Your task to perform on an android device: change text size in settings app Image 0: 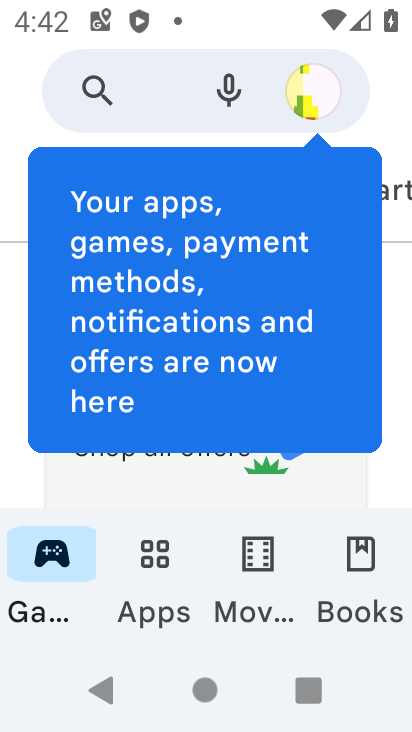
Step 0: press home button
Your task to perform on an android device: change text size in settings app Image 1: 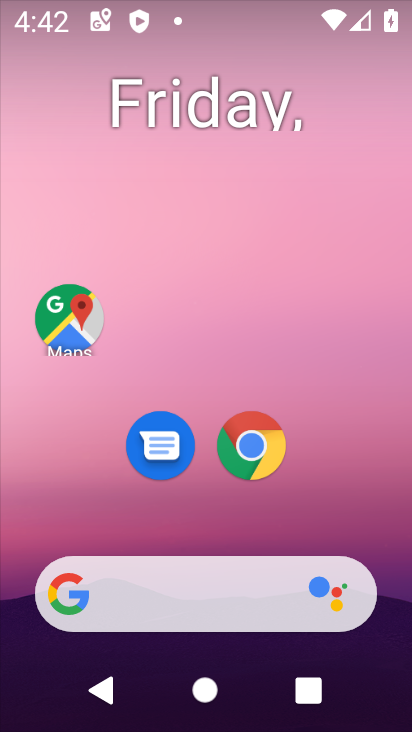
Step 1: drag from (347, 501) to (360, 129)
Your task to perform on an android device: change text size in settings app Image 2: 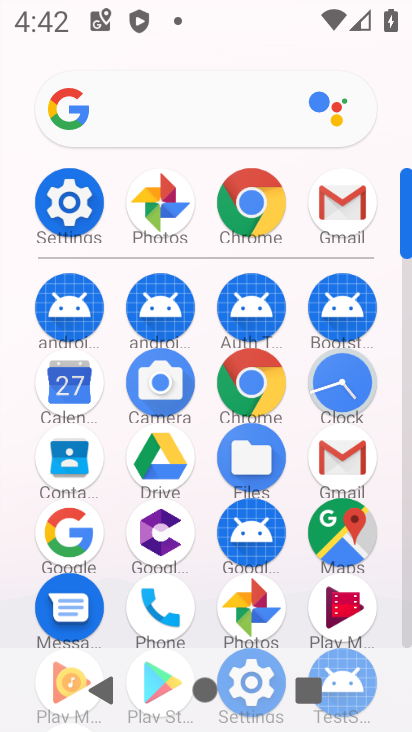
Step 2: click (56, 215)
Your task to perform on an android device: change text size in settings app Image 3: 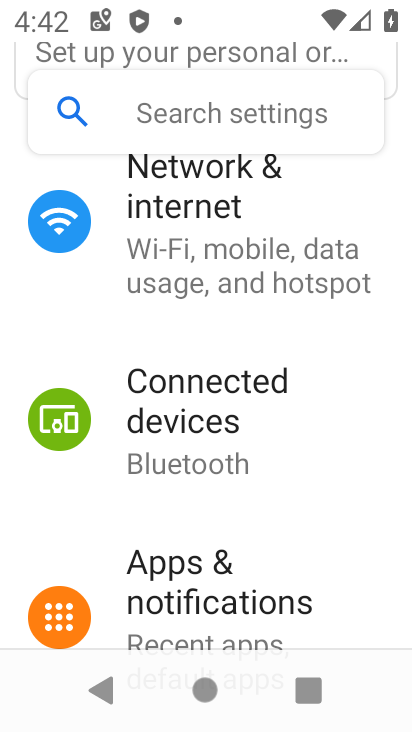
Step 3: drag from (325, 590) to (316, 184)
Your task to perform on an android device: change text size in settings app Image 4: 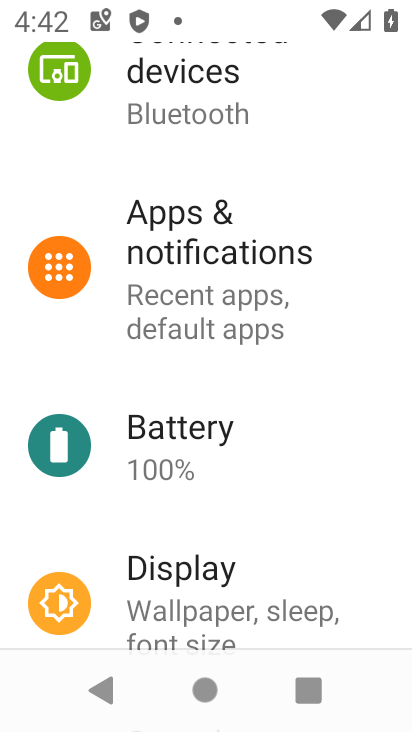
Step 4: click (286, 626)
Your task to perform on an android device: change text size in settings app Image 5: 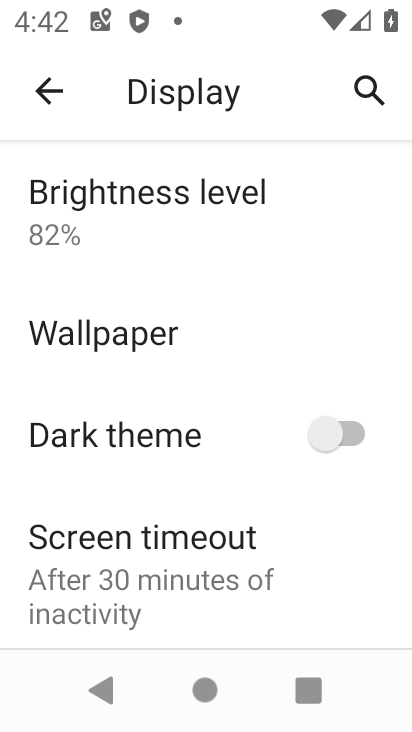
Step 5: drag from (328, 606) to (283, 177)
Your task to perform on an android device: change text size in settings app Image 6: 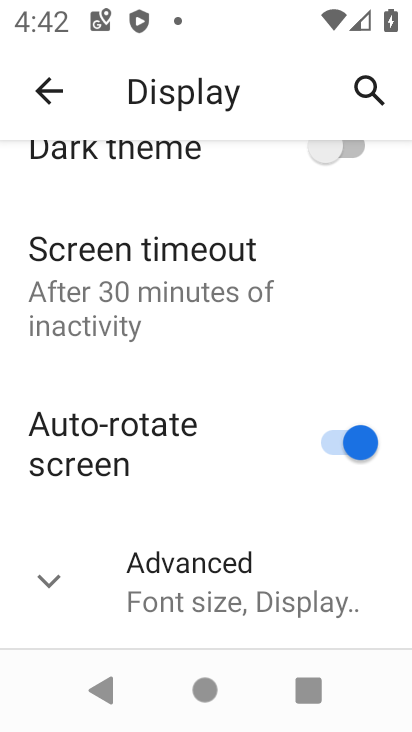
Step 6: click (174, 591)
Your task to perform on an android device: change text size in settings app Image 7: 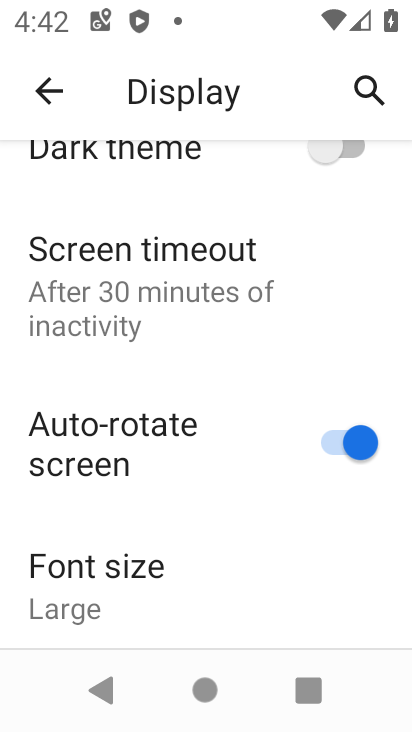
Step 7: click (273, 604)
Your task to perform on an android device: change text size in settings app Image 8: 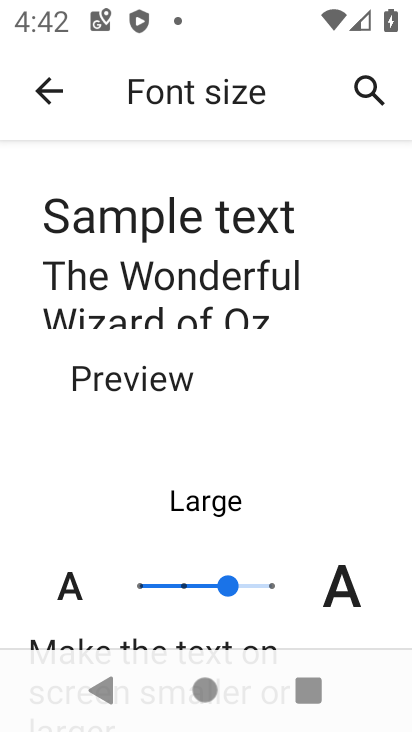
Step 8: task complete